Your task to perform on an android device: Go to calendar. Show me events next week Image 0: 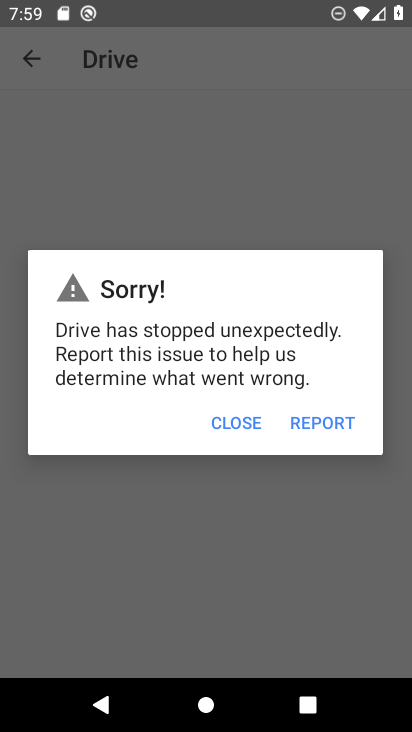
Step 0: press home button
Your task to perform on an android device: Go to calendar. Show me events next week Image 1: 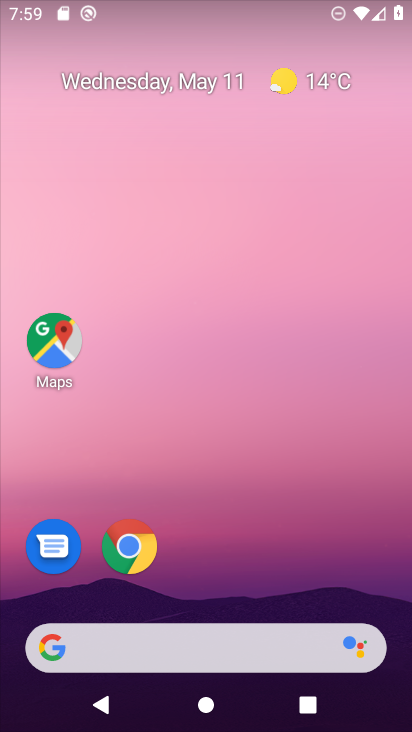
Step 1: drag from (191, 648) to (178, 12)
Your task to perform on an android device: Go to calendar. Show me events next week Image 2: 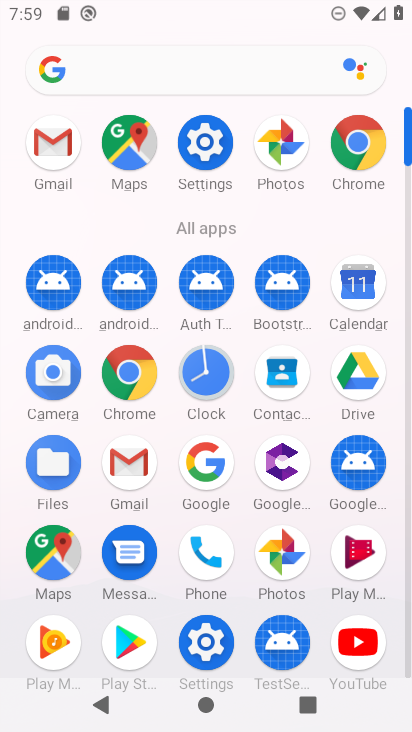
Step 2: click (369, 265)
Your task to perform on an android device: Go to calendar. Show me events next week Image 3: 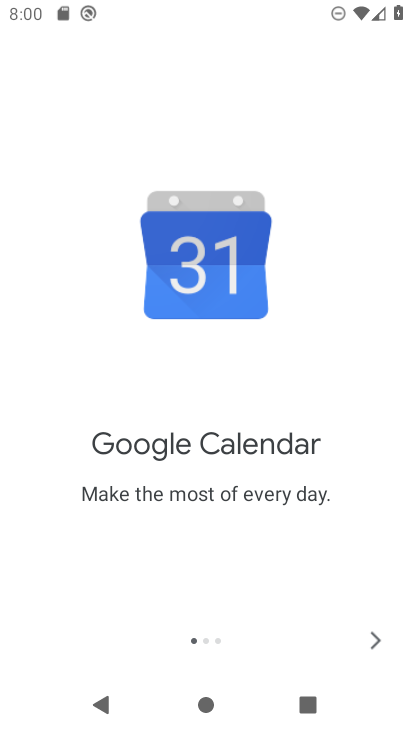
Step 3: click (379, 635)
Your task to perform on an android device: Go to calendar. Show me events next week Image 4: 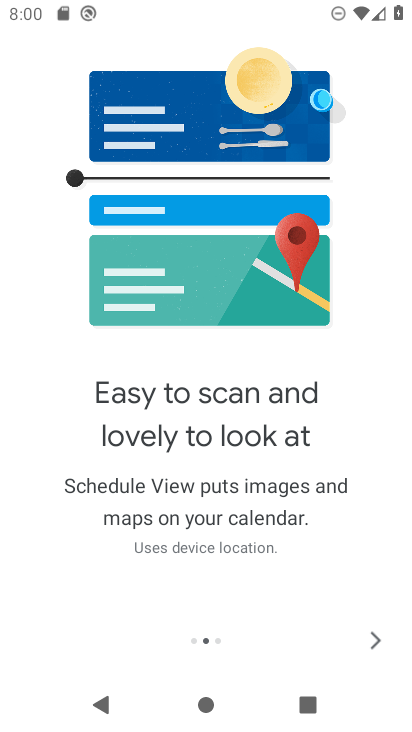
Step 4: click (379, 635)
Your task to perform on an android device: Go to calendar. Show me events next week Image 5: 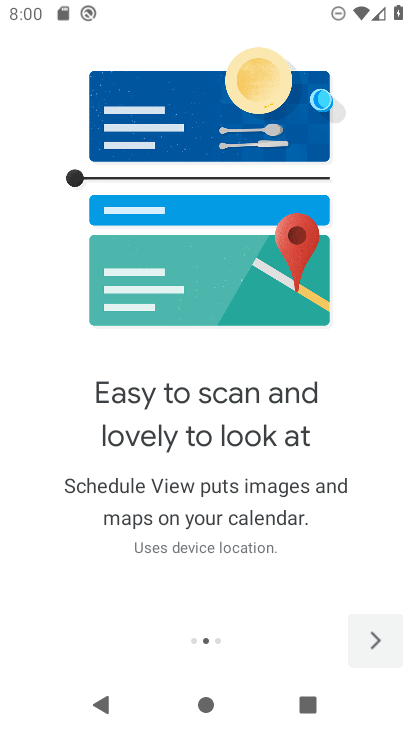
Step 5: click (379, 635)
Your task to perform on an android device: Go to calendar. Show me events next week Image 6: 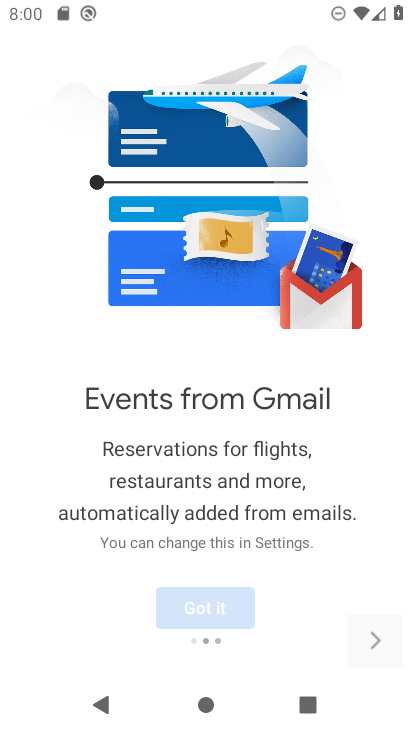
Step 6: click (379, 635)
Your task to perform on an android device: Go to calendar. Show me events next week Image 7: 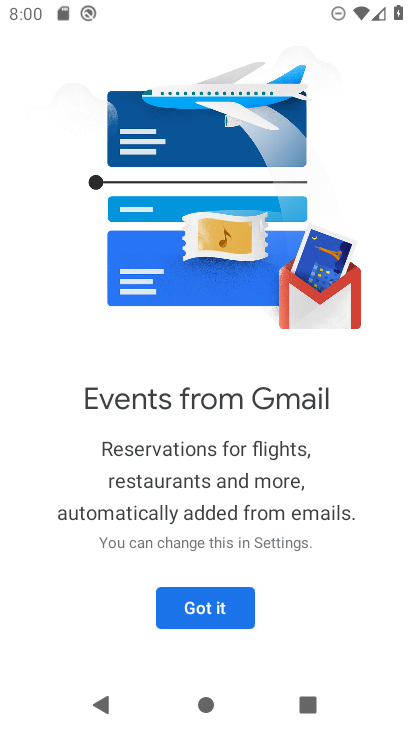
Step 7: click (189, 601)
Your task to perform on an android device: Go to calendar. Show me events next week Image 8: 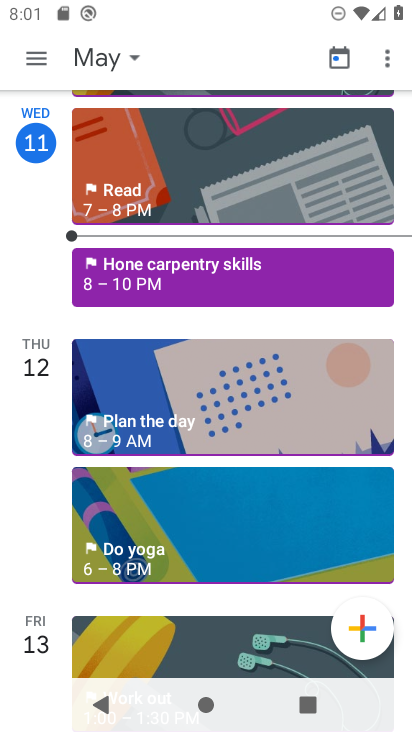
Step 8: click (35, 51)
Your task to perform on an android device: Go to calendar. Show me events next week Image 9: 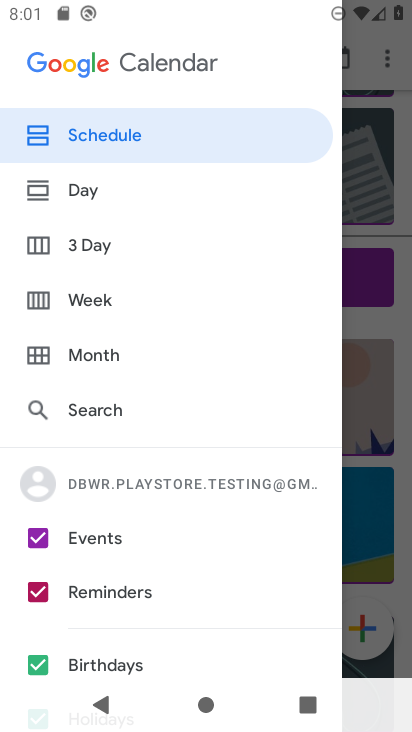
Step 9: click (89, 310)
Your task to perform on an android device: Go to calendar. Show me events next week Image 10: 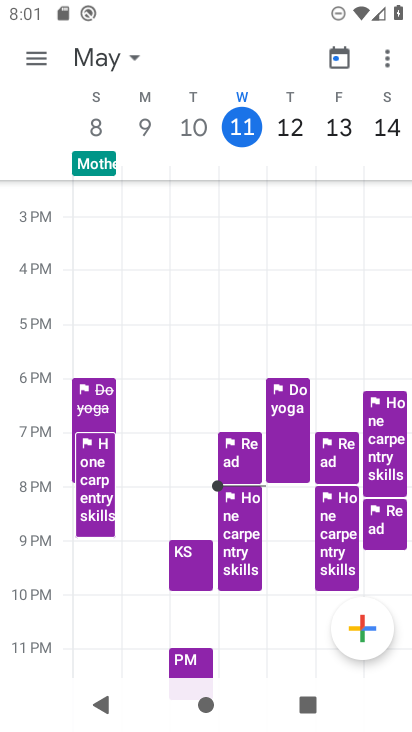
Step 10: task complete